Your task to perform on an android device: toggle priority inbox in the gmail app Image 0: 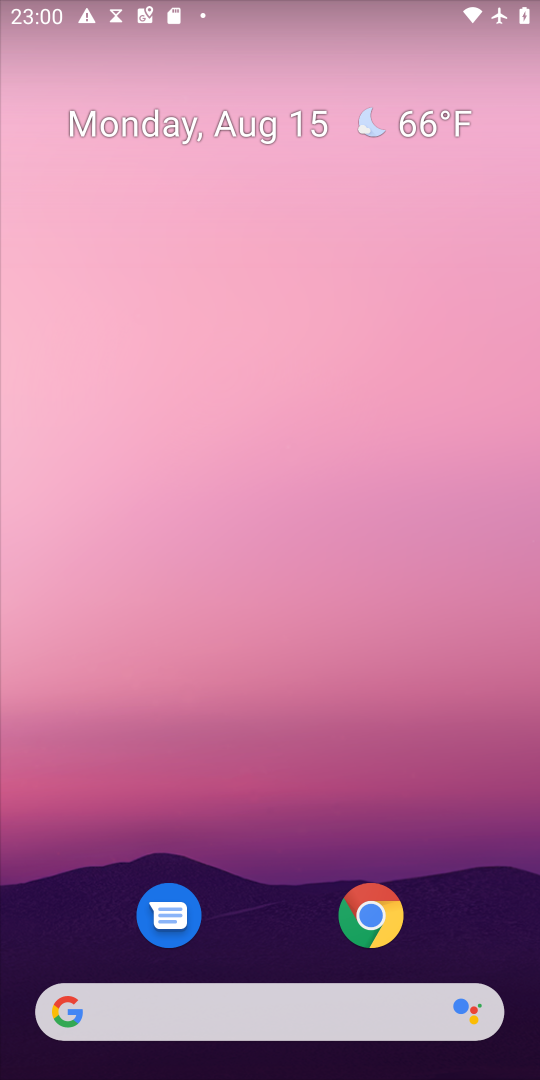
Step 0: drag from (316, 830) to (347, 230)
Your task to perform on an android device: toggle priority inbox in the gmail app Image 1: 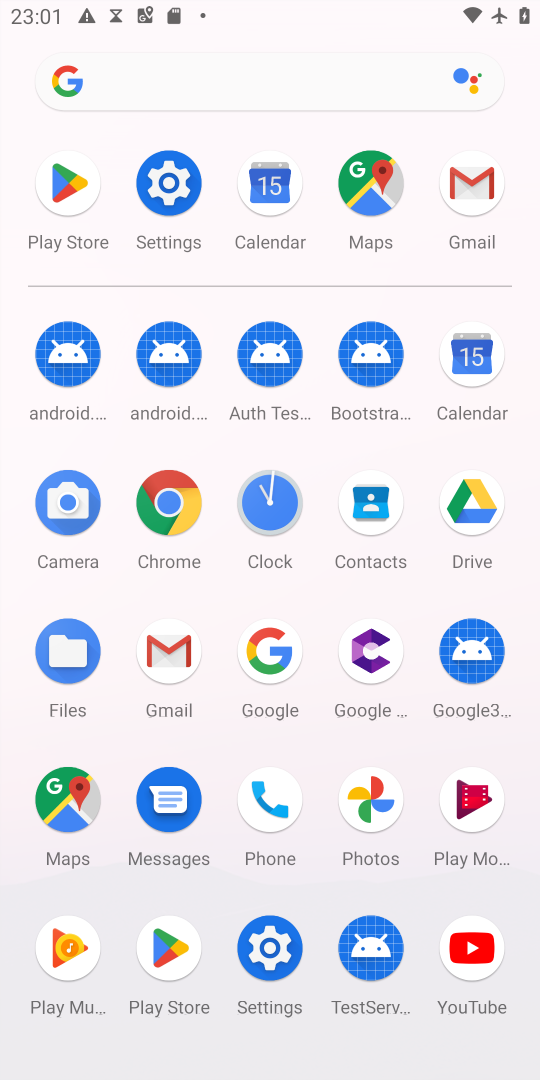
Step 1: click (487, 203)
Your task to perform on an android device: toggle priority inbox in the gmail app Image 2: 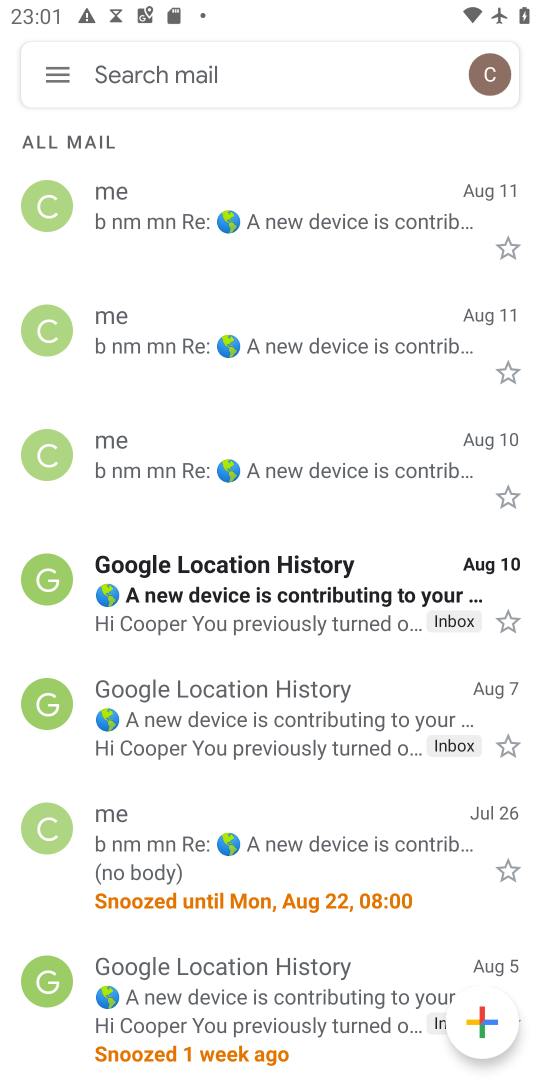
Step 2: click (63, 81)
Your task to perform on an android device: toggle priority inbox in the gmail app Image 3: 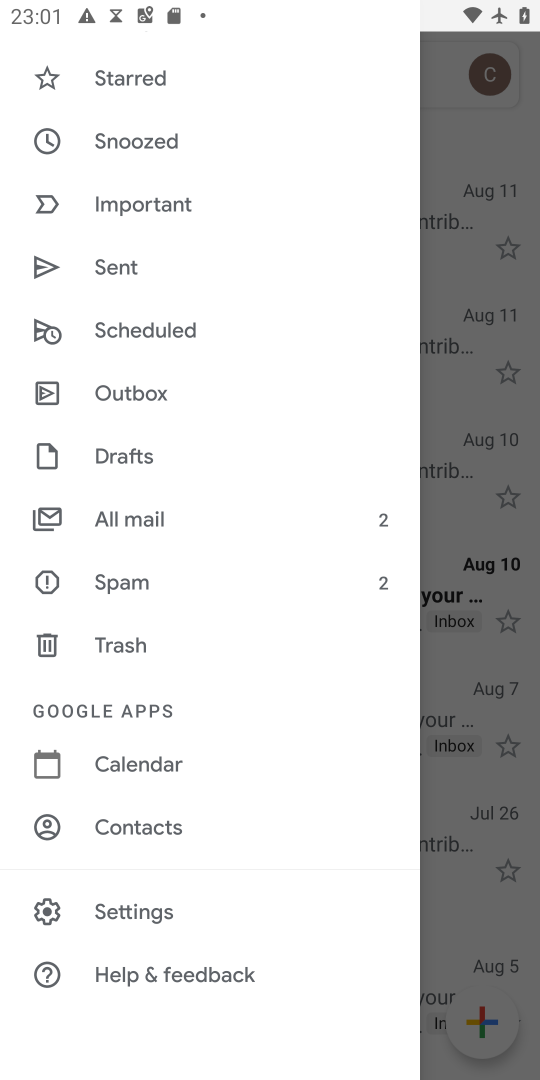
Step 3: click (137, 913)
Your task to perform on an android device: toggle priority inbox in the gmail app Image 4: 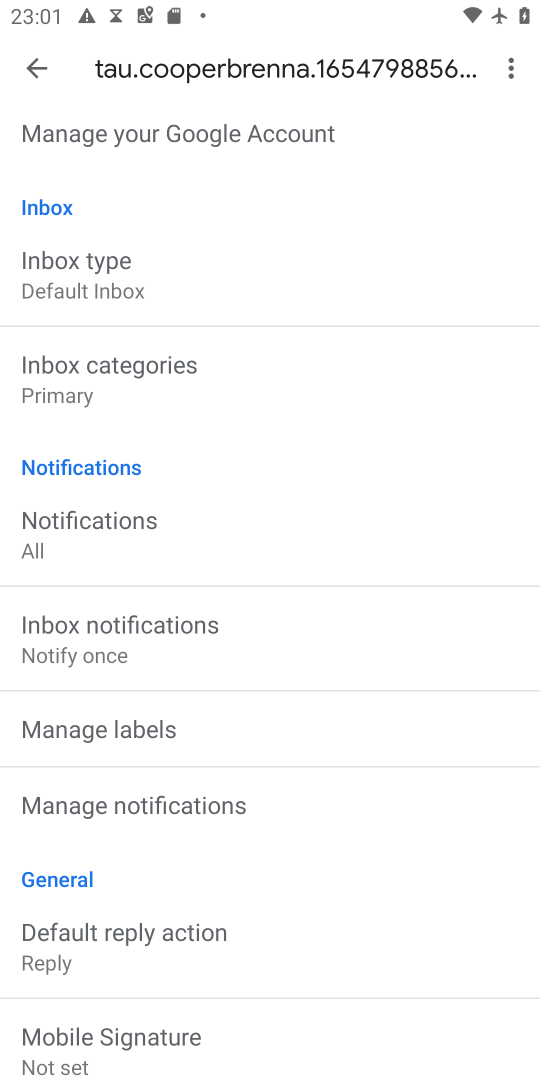
Step 4: click (94, 276)
Your task to perform on an android device: toggle priority inbox in the gmail app Image 5: 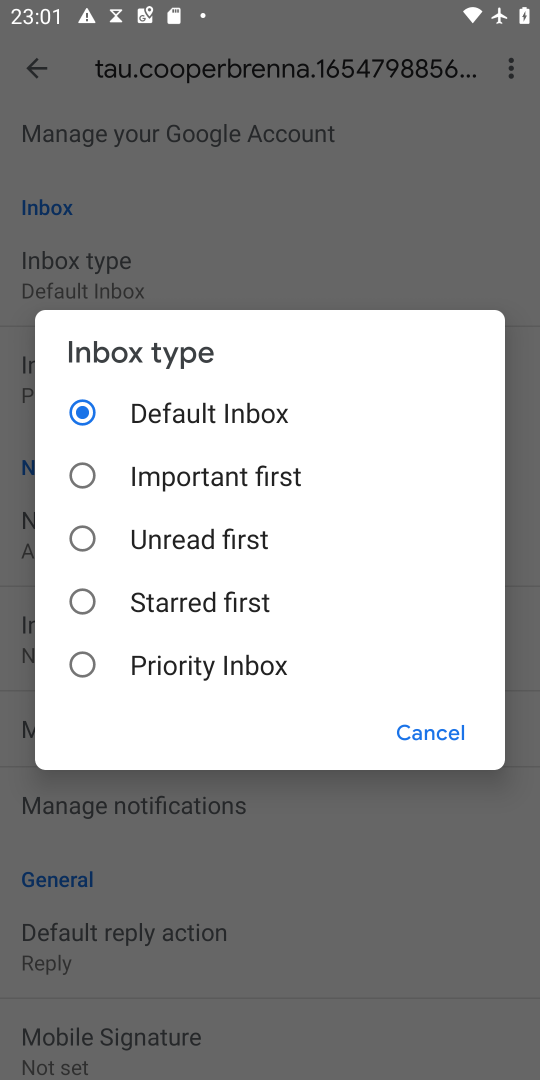
Step 5: click (84, 658)
Your task to perform on an android device: toggle priority inbox in the gmail app Image 6: 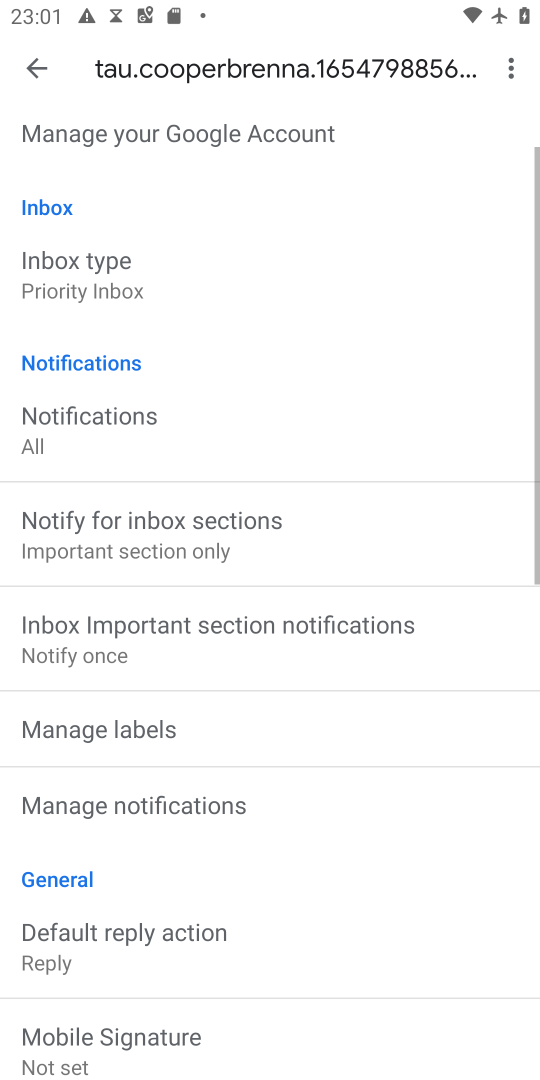
Step 6: task complete